Your task to perform on an android device: see creations saved in the google photos Image 0: 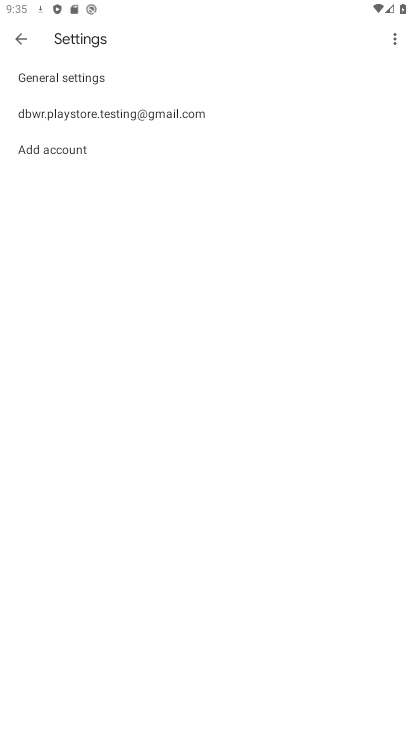
Step 0: press home button
Your task to perform on an android device: see creations saved in the google photos Image 1: 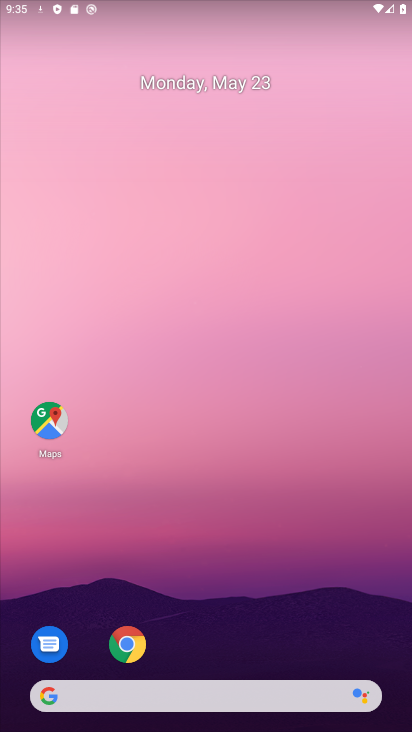
Step 1: drag from (266, 715) to (247, 214)
Your task to perform on an android device: see creations saved in the google photos Image 2: 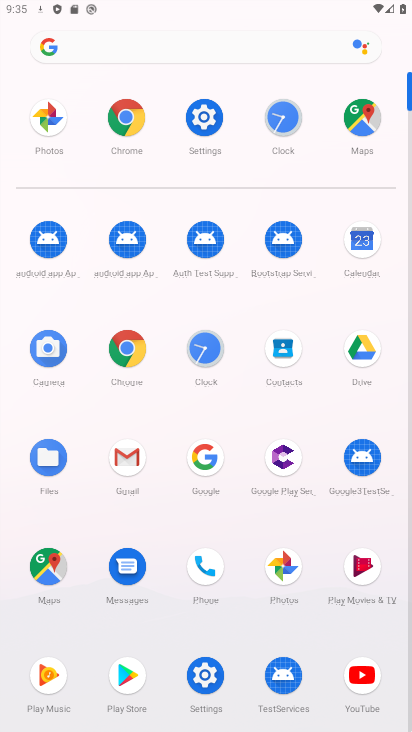
Step 2: click (273, 564)
Your task to perform on an android device: see creations saved in the google photos Image 3: 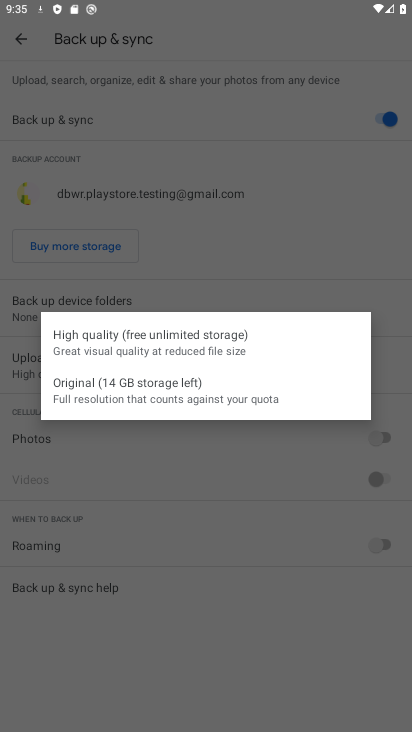
Step 3: click (48, 45)
Your task to perform on an android device: see creations saved in the google photos Image 4: 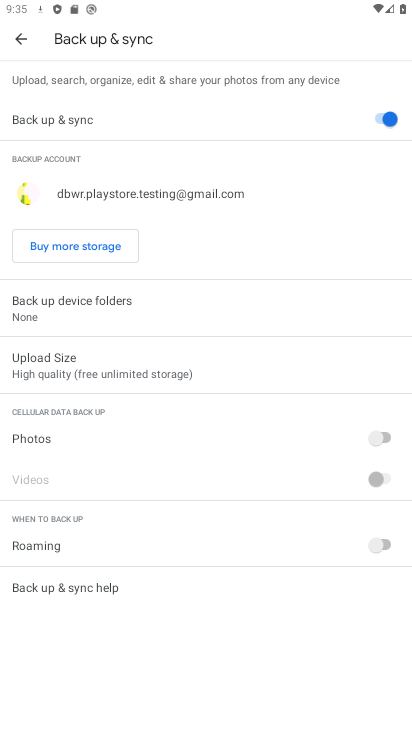
Step 4: click (21, 43)
Your task to perform on an android device: see creations saved in the google photos Image 5: 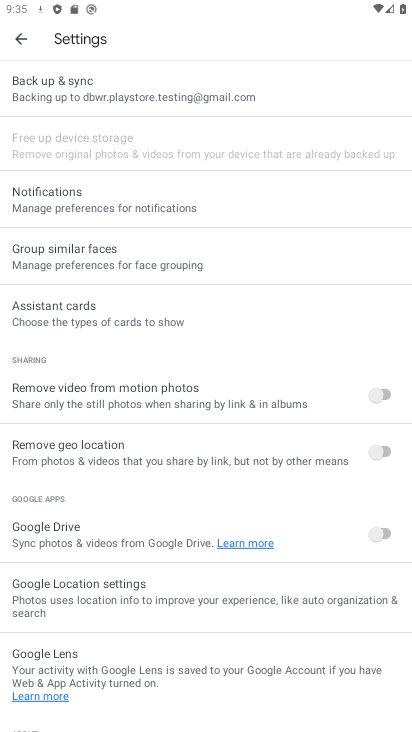
Step 5: click (25, 34)
Your task to perform on an android device: see creations saved in the google photos Image 6: 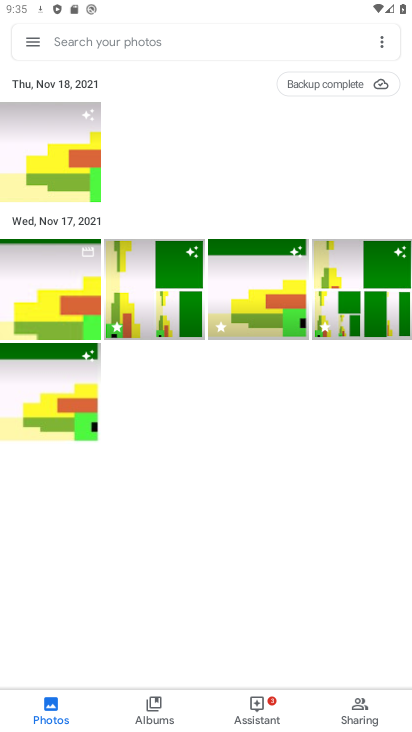
Step 6: click (239, 310)
Your task to perform on an android device: see creations saved in the google photos Image 7: 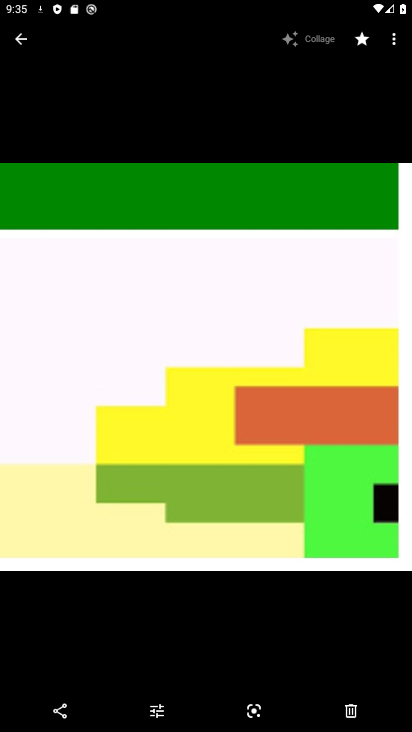
Step 7: click (396, 42)
Your task to perform on an android device: see creations saved in the google photos Image 8: 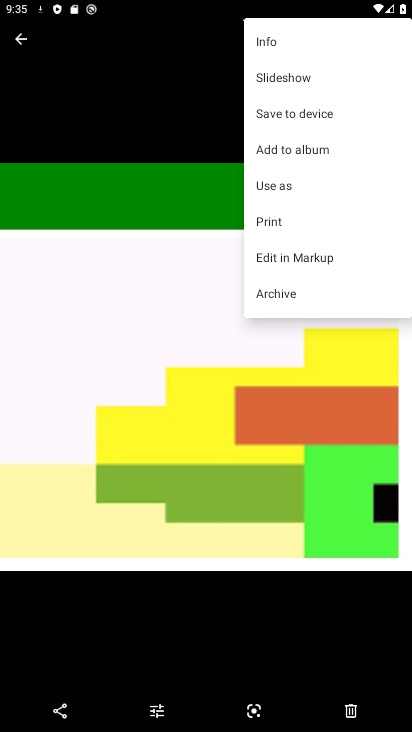
Step 8: click (274, 115)
Your task to perform on an android device: see creations saved in the google photos Image 9: 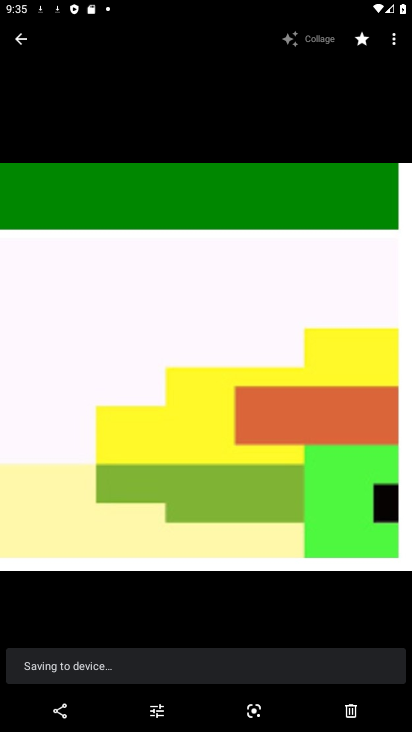
Step 9: task complete